Your task to perform on an android device: What's the weather going to be tomorrow? Image 0: 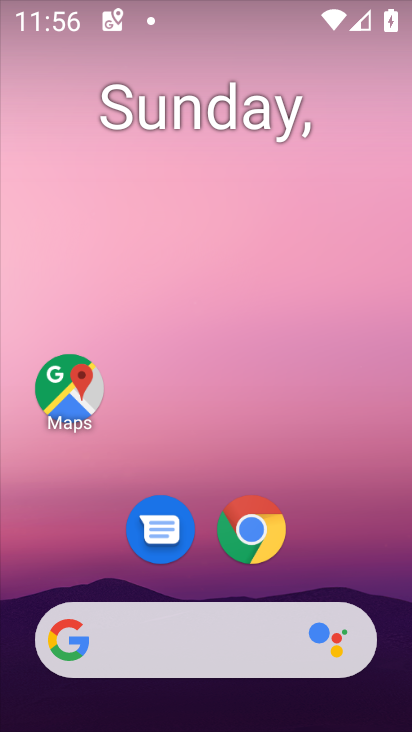
Step 0: click (214, 638)
Your task to perform on an android device: What's the weather going to be tomorrow? Image 1: 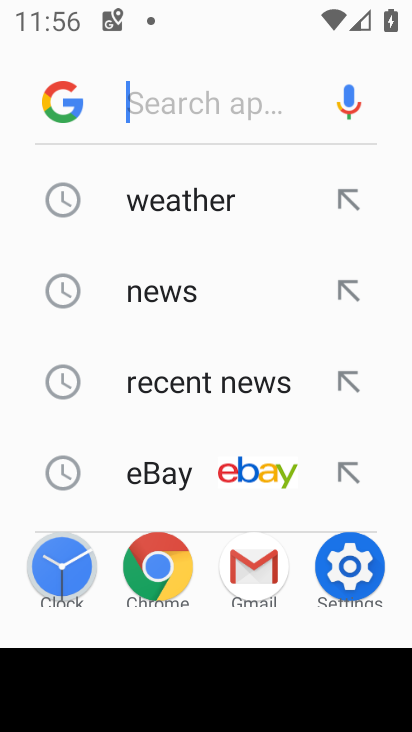
Step 1: click (212, 208)
Your task to perform on an android device: What's the weather going to be tomorrow? Image 2: 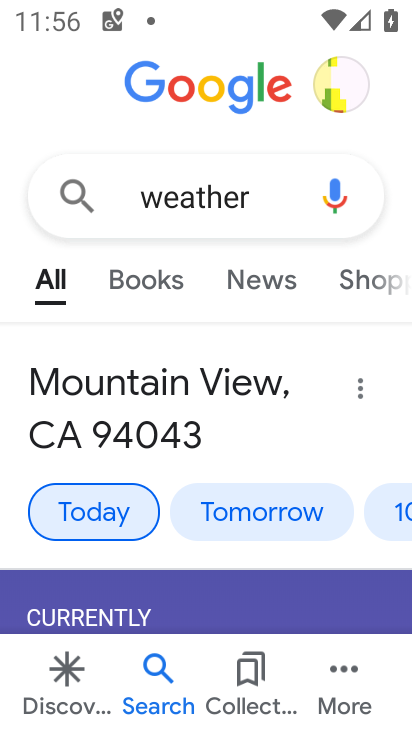
Step 2: click (255, 518)
Your task to perform on an android device: What's the weather going to be tomorrow? Image 3: 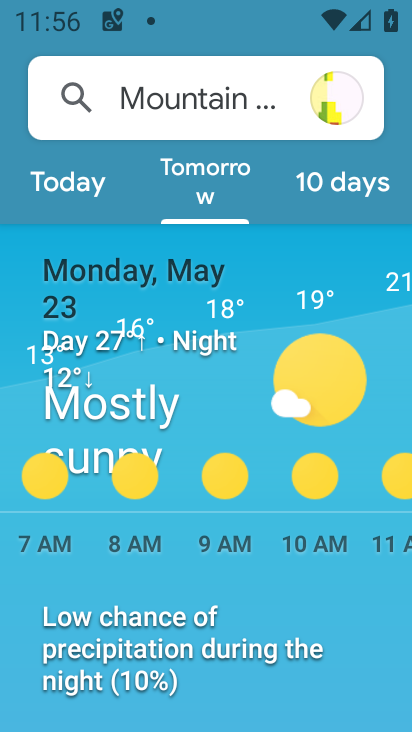
Step 3: task complete